Your task to perform on an android device: Go to sound settings Image 0: 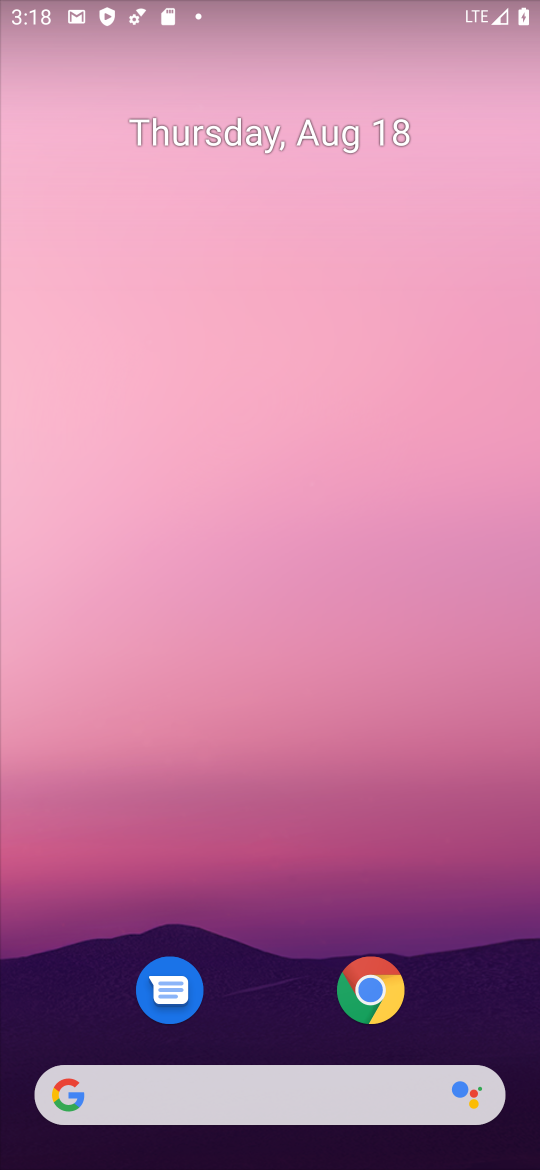
Step 0: drag from (240, 996) to (414, 273)
Your task to perform on an android device: Go to sound settings Image 1: 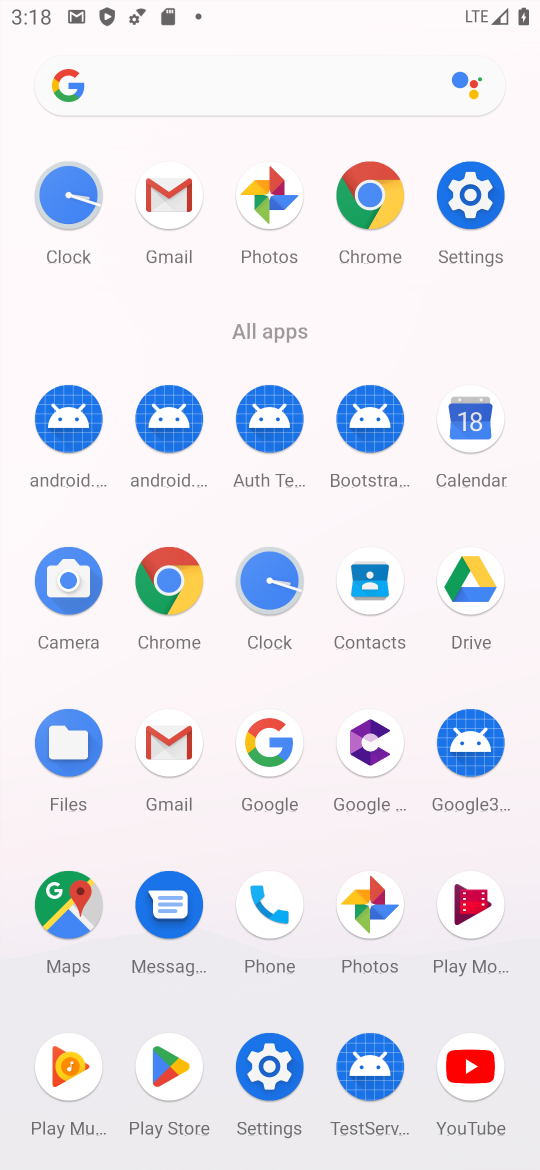
Step 1: click (272, 1067)
Your task to perform on an android device: Go to sound settings Image 2: 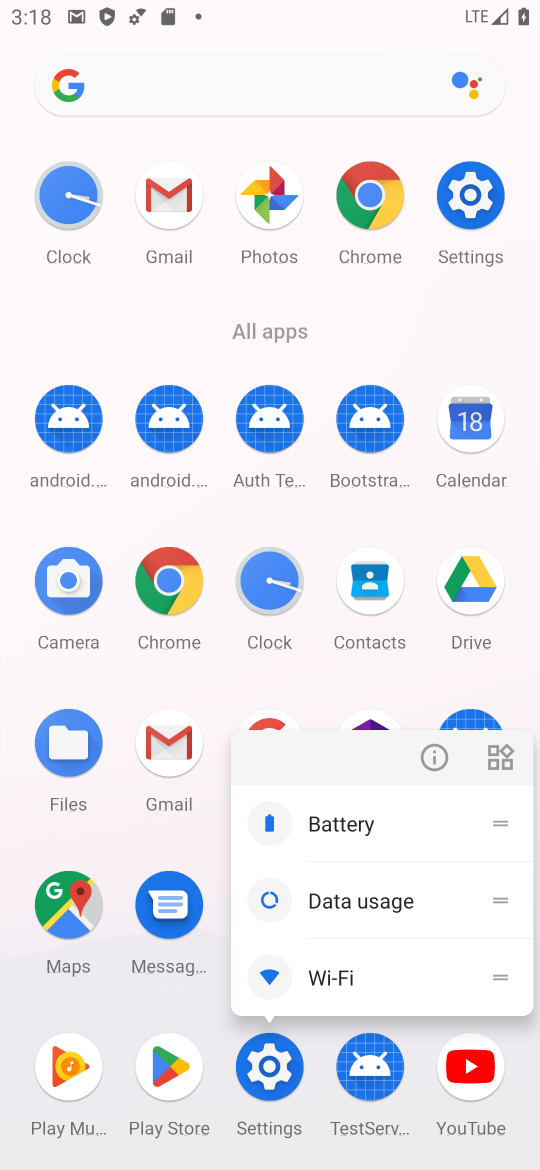
Step 2: click (272, 1067)
Your task to perform on an android device: Go to sound settings Image 3: 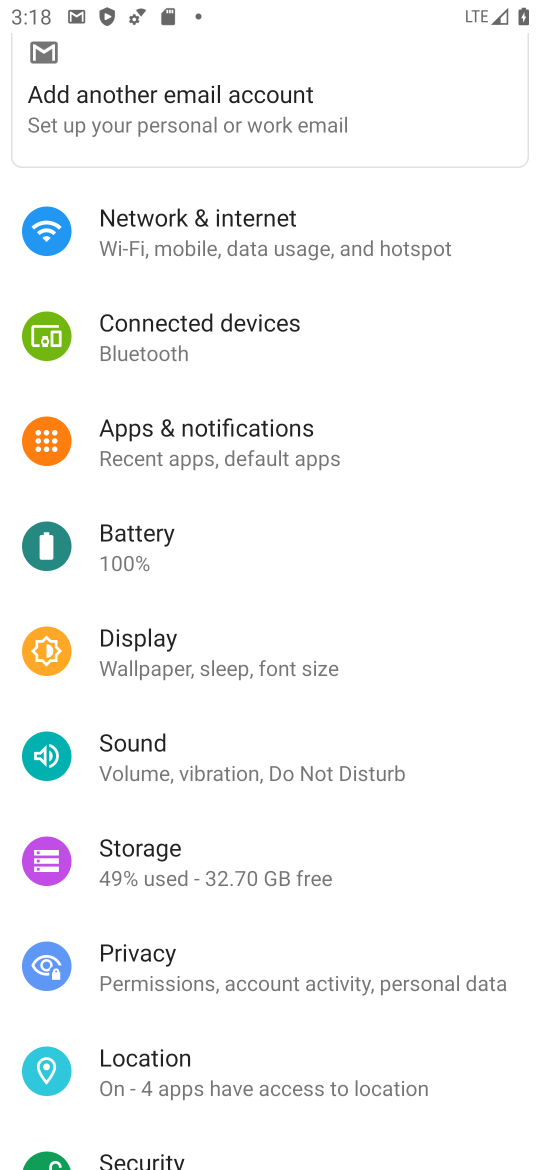
Step 3: click (217, 767)
Your task to perform on an android device: Go to sound settings Image 4: 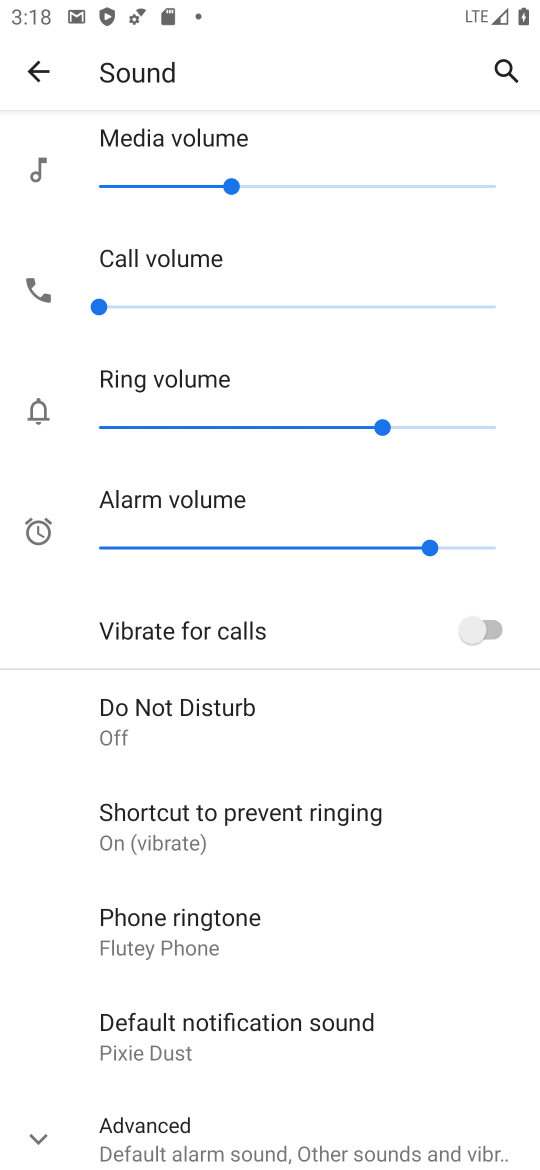
Step 4: task complete